Your task to perform on an android device: turn off location history Image 0: 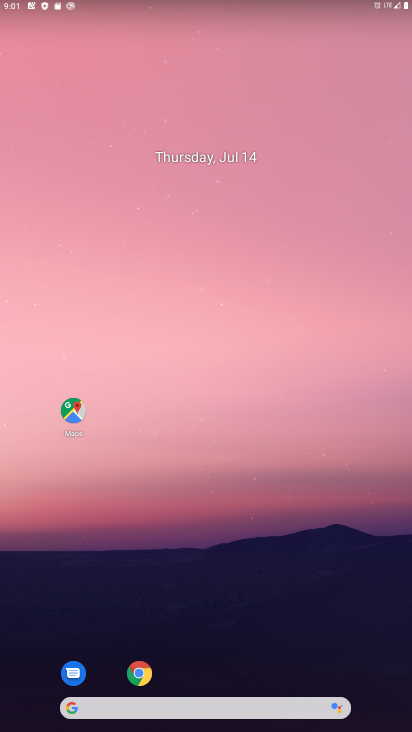
Step 0: drag from (192, 705) to (198, 371)
Your task to perform on an android device: turn off location history Image 1: 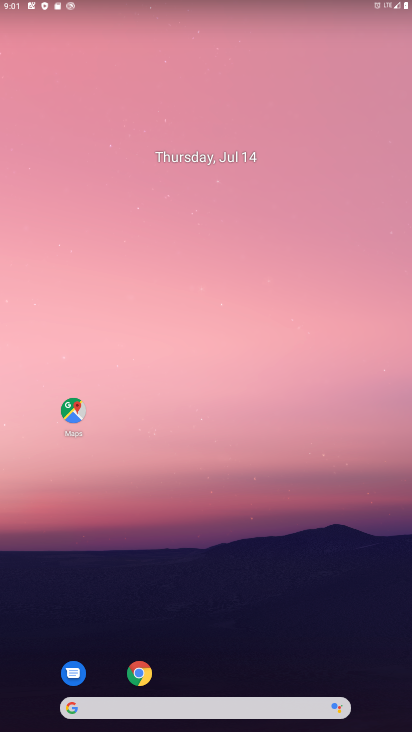
Step 1: drag from (182, 703) to (243, 16)
Your task to perform on an android device: turn off location history Image 2: 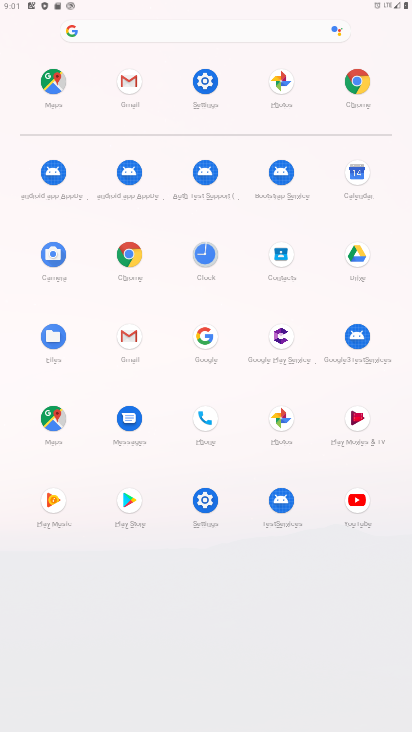
Step 2: click (207, 82)
Your task to perform on an android device: turn off location history Image 3: 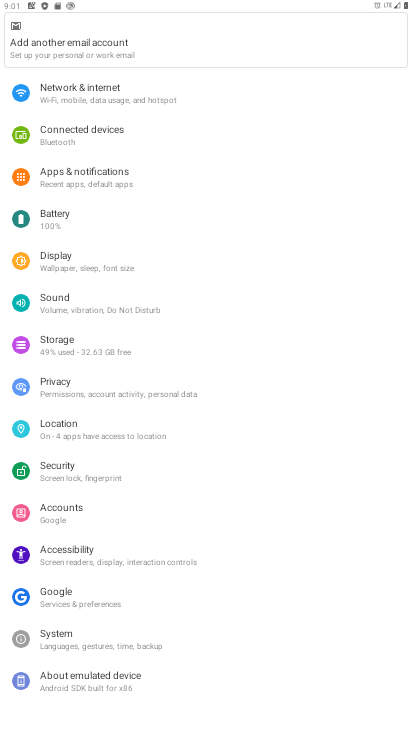
Step 3: click (57, 427)
Your task to perform on an android device: turn off location history Image 4: 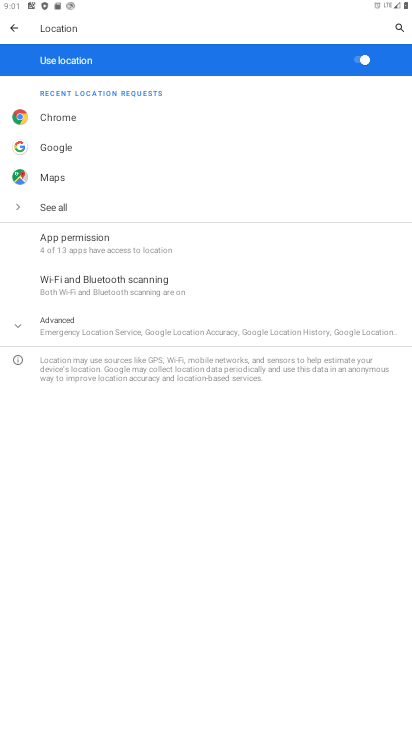
Step 4: click (81, 333)
Your task to perform on an android device: turn off location history Image 5: 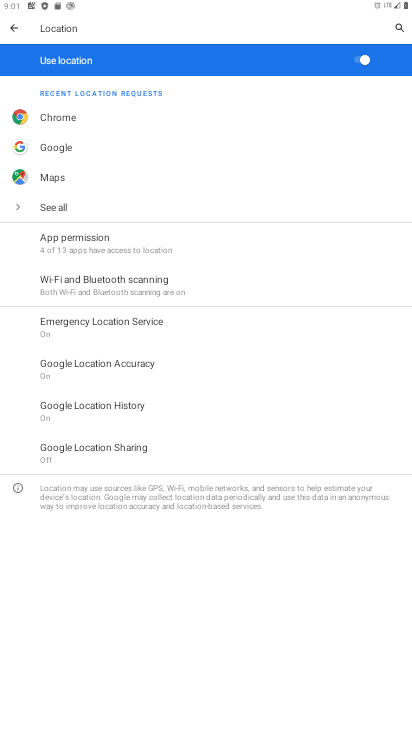
Step 5: click (75, 404)
Your task to perform on an android device: turn off location history Image 6: 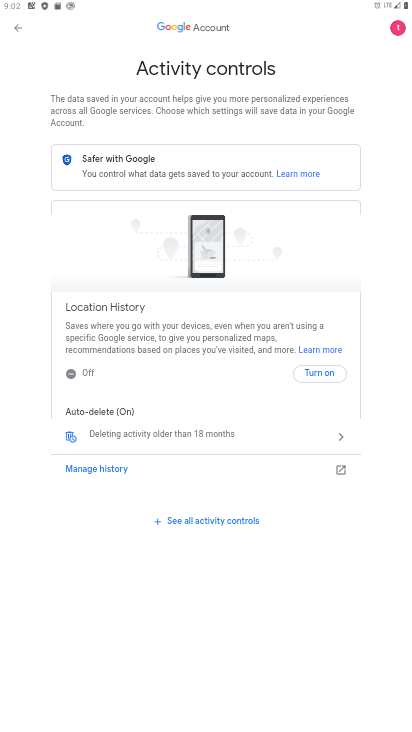
Step 6: task complete